Your task to perform on an android device: delete a single message in the gmail app Image 0: 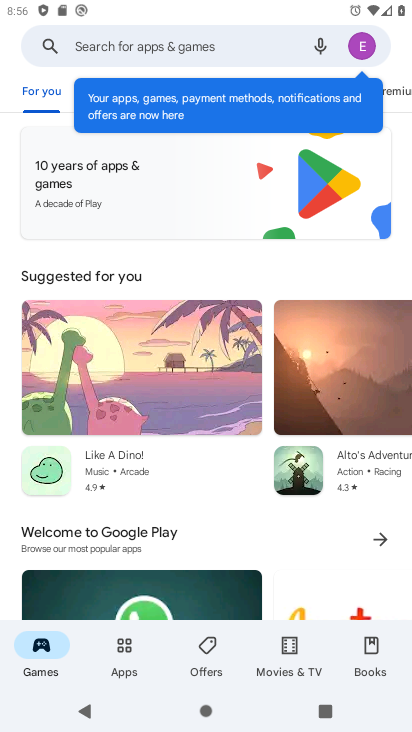
Step 0: press home button
Your task to perform on an android device: delete a single message in the gmail app Image 1: 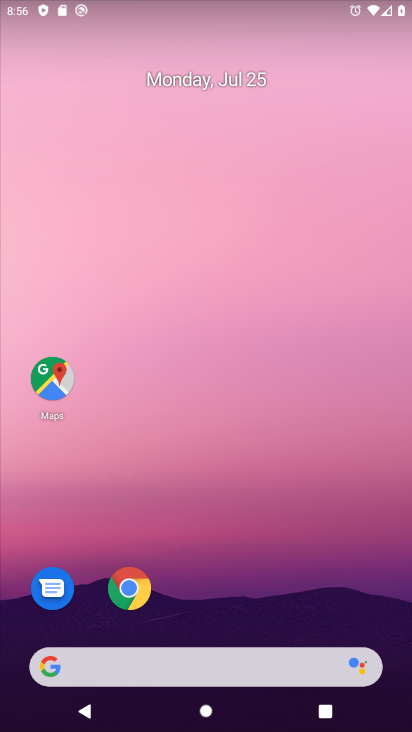
Step 1: drag from (338, 545) to (368, 82)
Your task to perform on an android device: delete a single message in the gmail app Image 2: 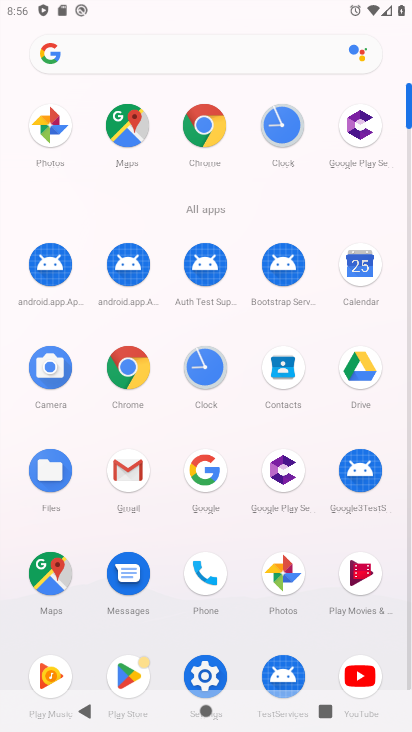
Step 2: click (122, 460)
Your task to perform on an android device: delete a single message in the gmail app Image 3: 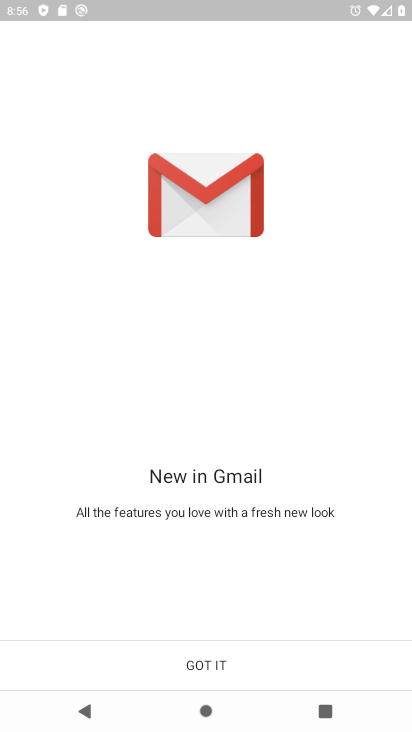
Step 3: click (199, 660)
Your task to perform on an android device: delete a single message in the gmail app Image 4: 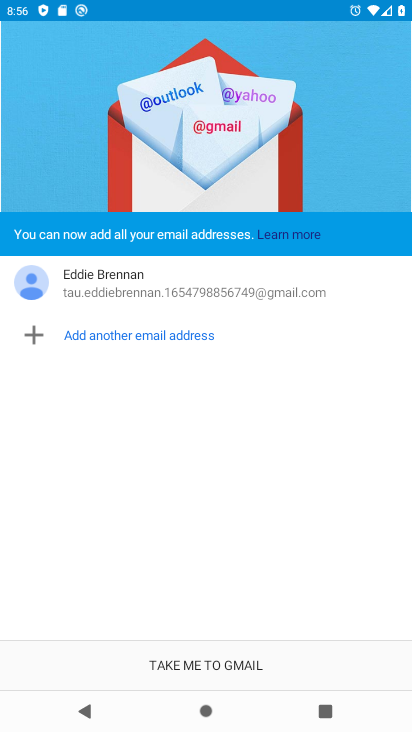
Step 4: click (199, 660)
Your task to perform on an android device: delete a single message in the gmail app Image 5: 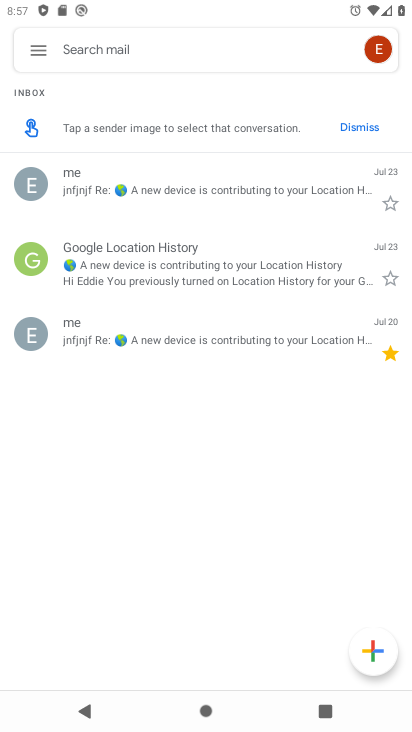
Step 5: click (27, 173)
Your task to perform on an android device: delete a single message in the gmail app Image 6: 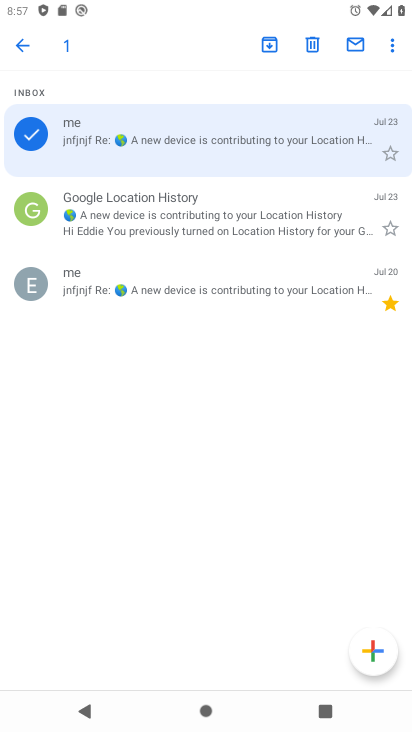
Step 6: click (309, 41)
Your task to perform on an android device: delete a single message in the gmail app Image 7: 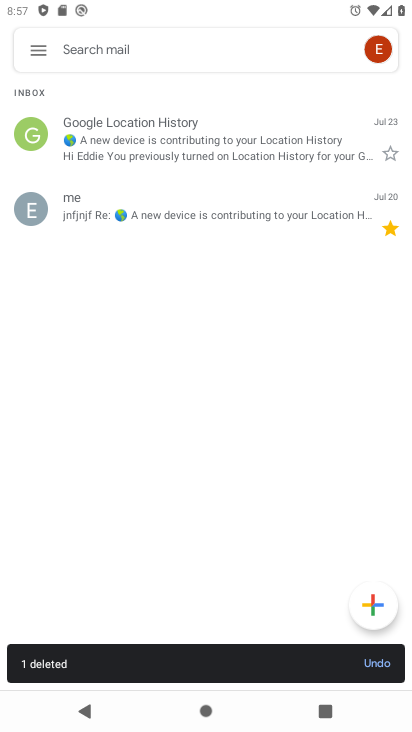
Step 7: task complete